Your task to perform on an android device: move a message to another label in the gmail app Image 0: 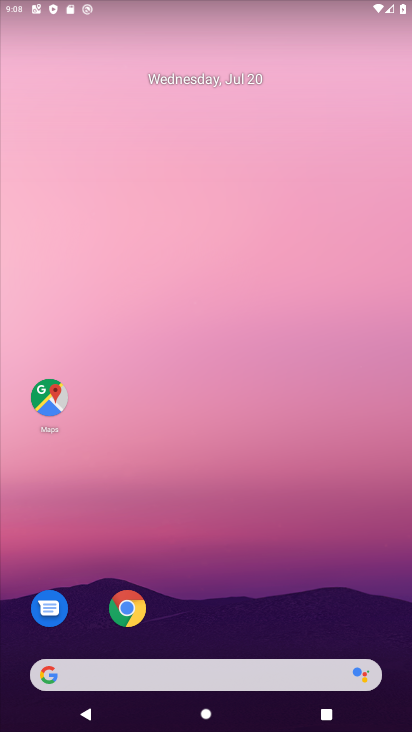
Step 0: drag from (309, 448) to (256, 39)
Your task to perform on an android device: move a message to another label in the gmail app Image 1: 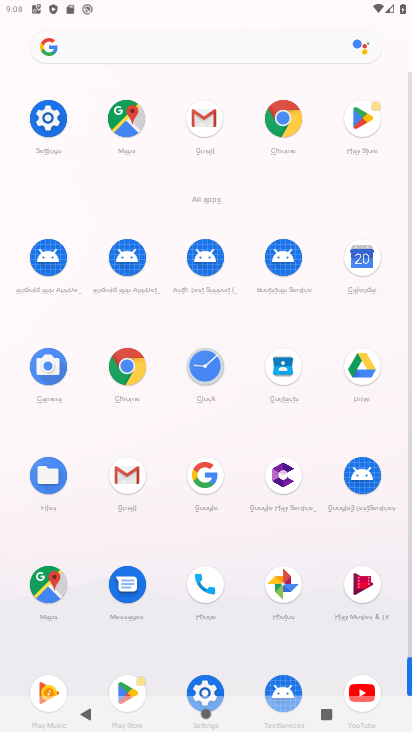
Step 1: click (189, 120)
Your task to perform on an android device: move a message to another label in the gmail app Image 2: 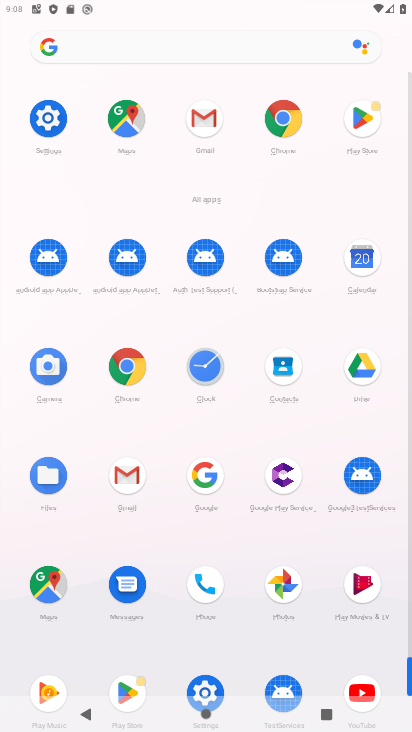
Step 2: click (189, 120)
Your task to perform on an android device: move a message to another label in the gmail app Image 3: 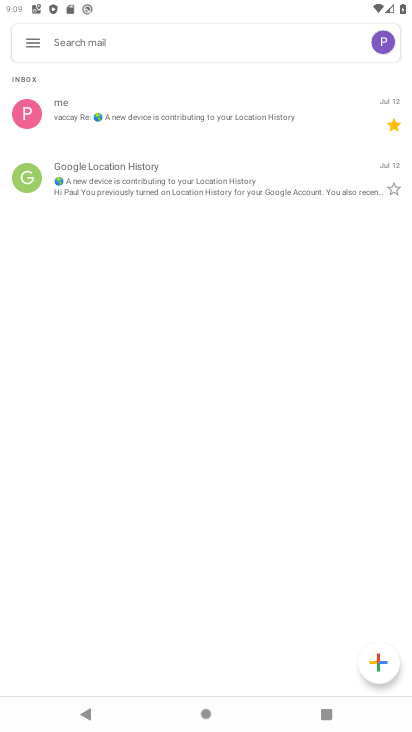
Step 3: click (164, 188)
Your task to perform on an android device: move a message to another label in the gmail app Image 4: 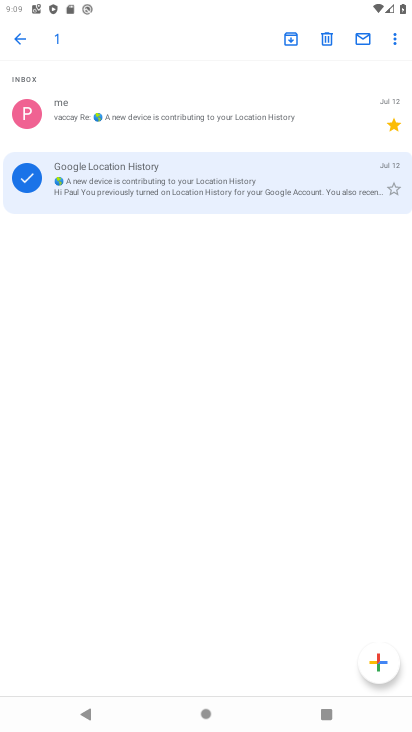
Step 4: click (391, 40)
Your task to perform on an android device: move a message to another label in the gmail app Image 5: 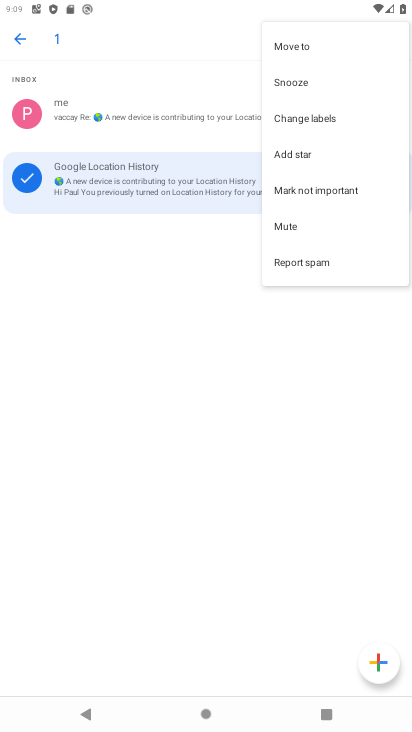
Step 5: click (306, 119)
Your task to perform on an android device: move a message to another label in the gmail app Image 6: 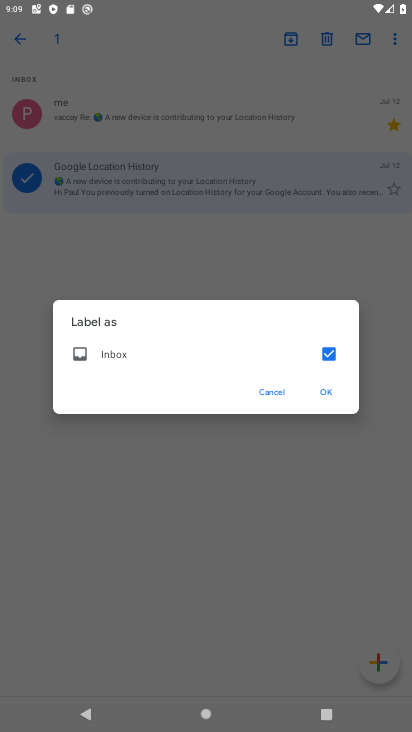
Step 6: click (326, 394)
Your task to perform on an android device: move a message to another label in the gmail app Image 7: 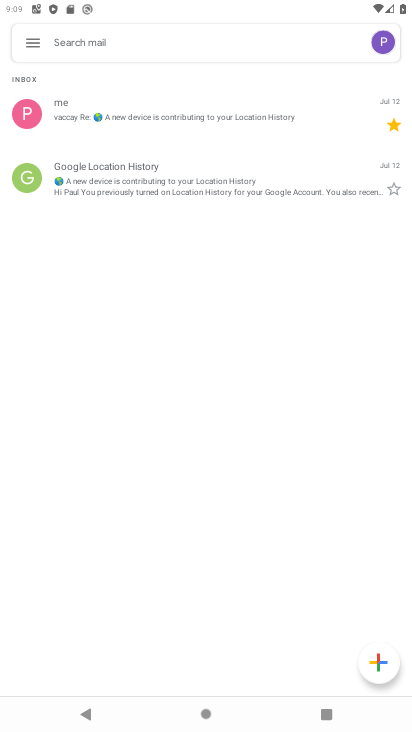
Step 7: task complete